Your task to perform on an android device: turn on airplane mode Image 0: 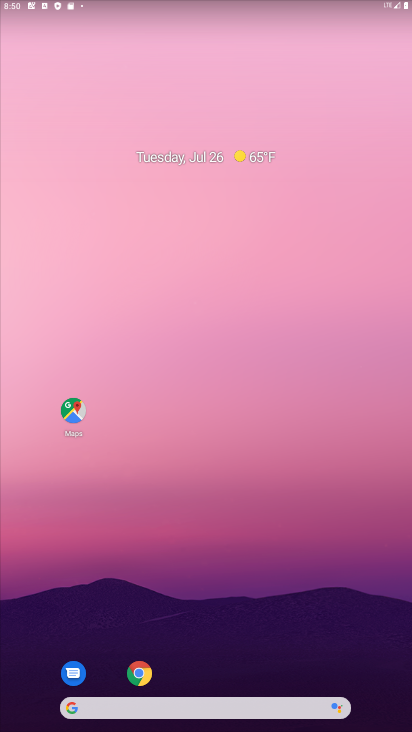
Step 0: drag from (225, 655) to (285, 54)
Your task to perform on an android device: turn on airplane mode Image 1: 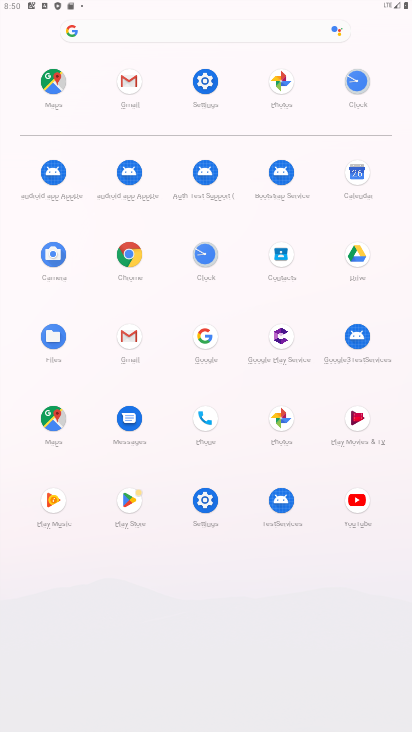
Step 1: click (214, 82)
Your task to perform on an android device: turn on airplane mode Image 2: 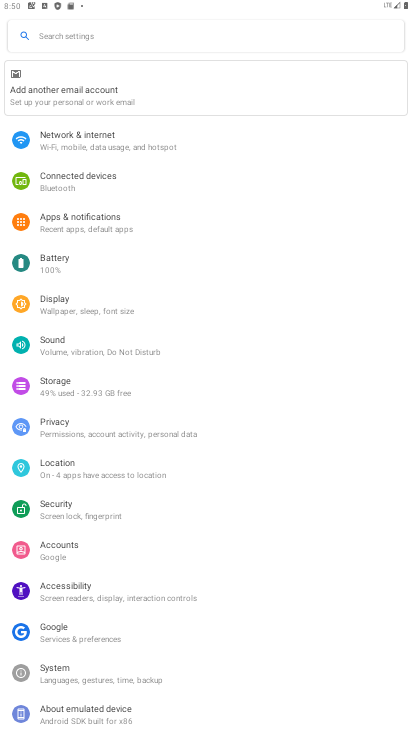
Step 2: click (89, 151)
Your task to perform on an android device: turn on airplane mode Image 3: 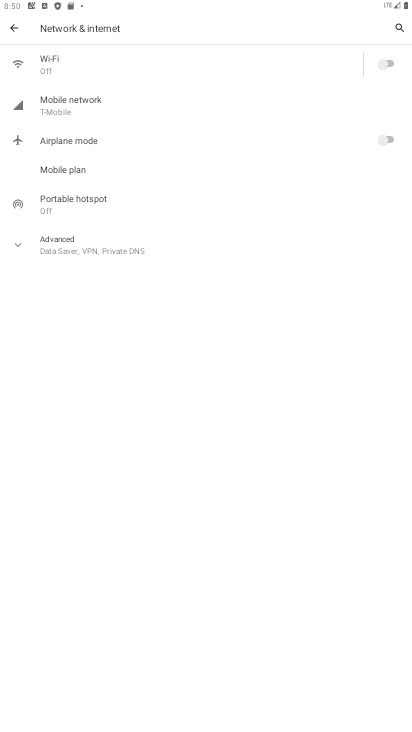
Step 3: click (392, 145)
Your task to perform on an android device: turn on airplane mode Image 4: 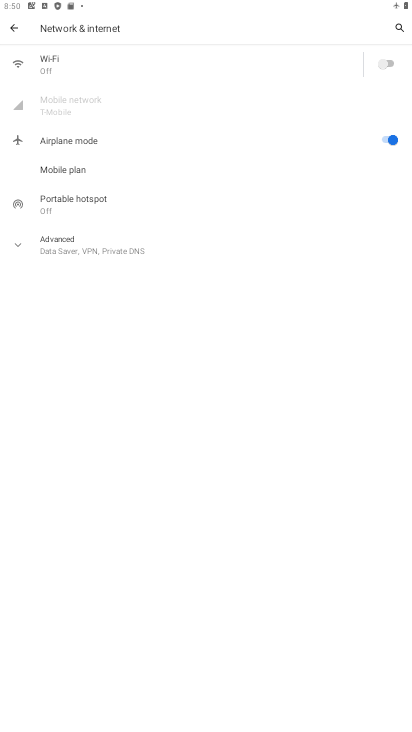
Step 4: task complete